Your task to perform on an android device: open chrome and create a bookmark for the current page Image 0: 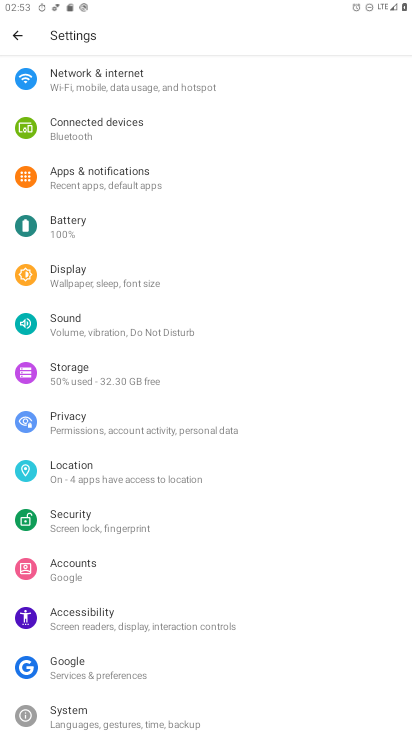
Step 0: press home button
Your task to perform on an android device: open chrome and create a bookmark for the current page Image 1: 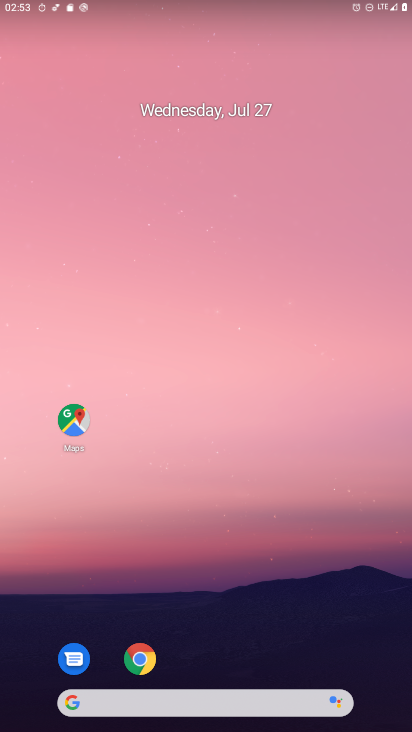
Step 1: drag from (308, 649) to (230, 93)
Your task to perform on an android device: open chrome and create a bookmark for the current page Image 2: 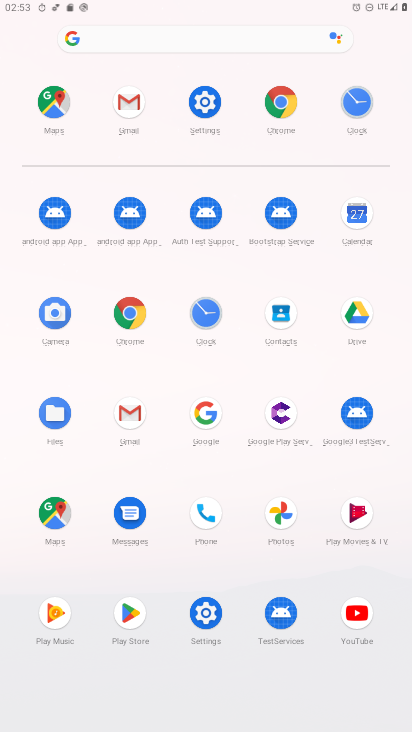
Step 2: click (277, 100)
Your task to perform on an android device: open chrome and create a bookmark for the current page Image 3: 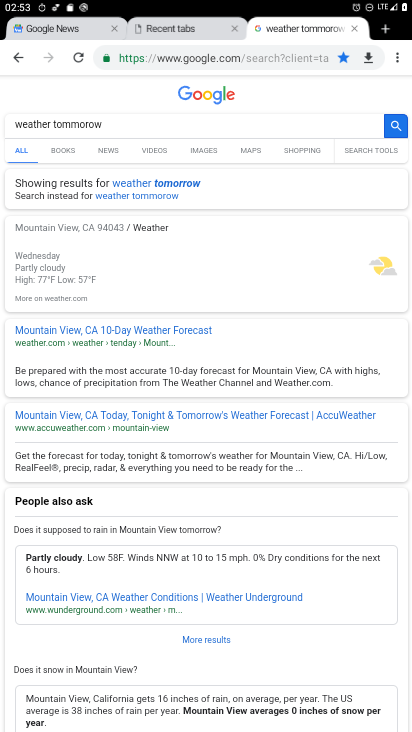
Step 3: task complete